Your task to perform on an android device: see sites visited before in the chrome app Image 0: 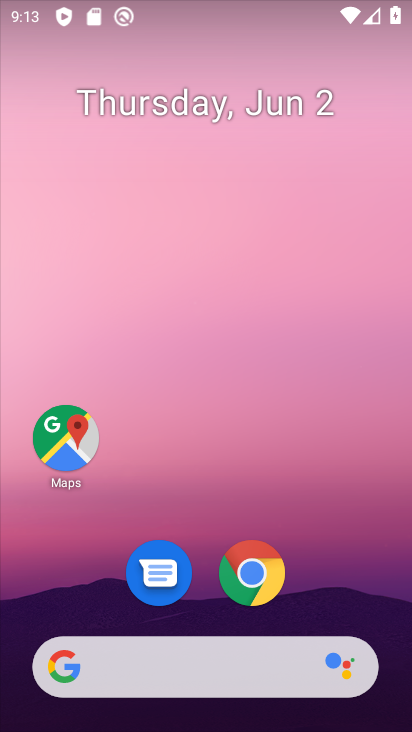
Step 0: click (252, 580)
Your task to perform on an android device: see sites visited before in the chrome app Image 1: 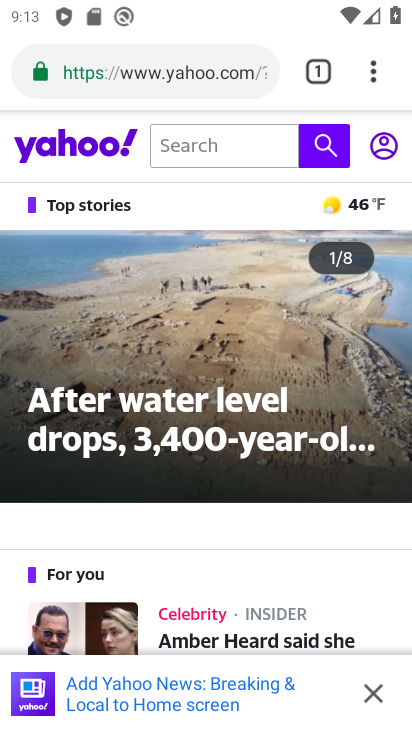
Step 1: task complete